Your task to perform on an android device: change the upload size in google photos Image 0: 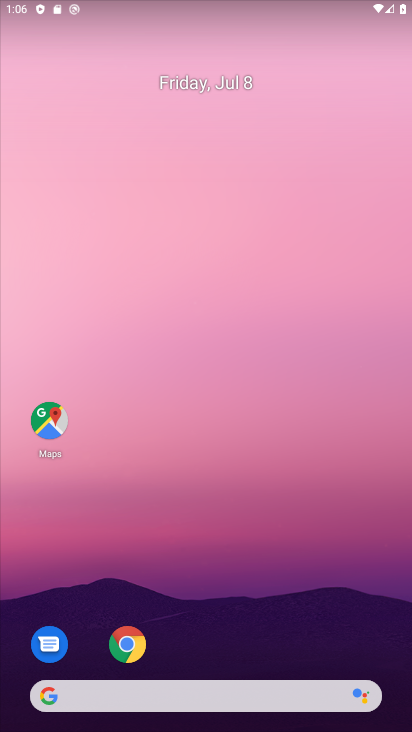
Step 0: press home button
Your task to perform on an android device: change the upload size in google photos Image 1: 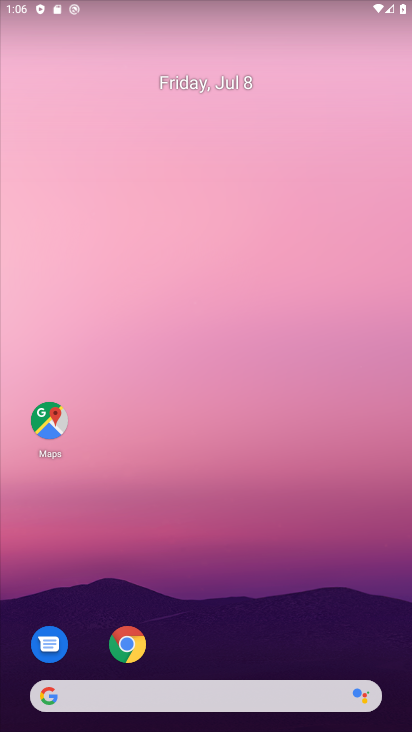
Step 1: drag from (234, 562) to (331, 62)
Your task to perform on an android device: change the upload size in google photos Image 2: 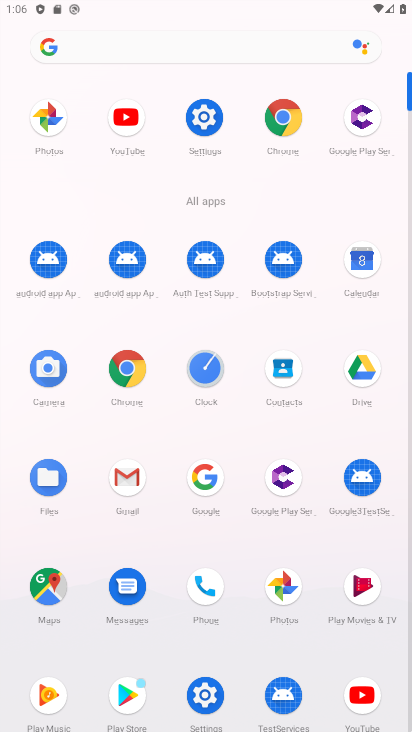
Step 2: click (283, 578)
Your task to perform on an android device: change the upload size in google photos Image 3: 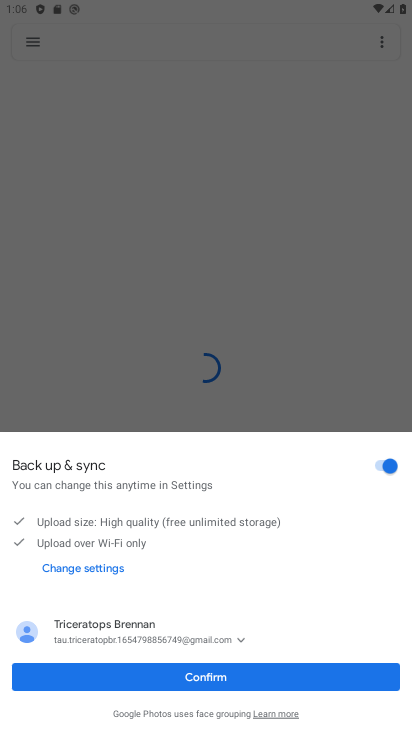
Step 3: click (240, 679)
Your task to perform on an android device: change the upload size in google photos Image 4: 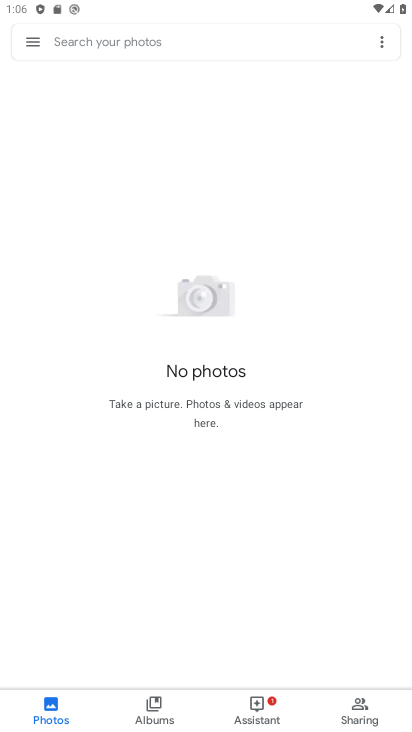
Step 4: click (57, 709)
Your task to perform on an android device: change the upload size in google photos Image 5: 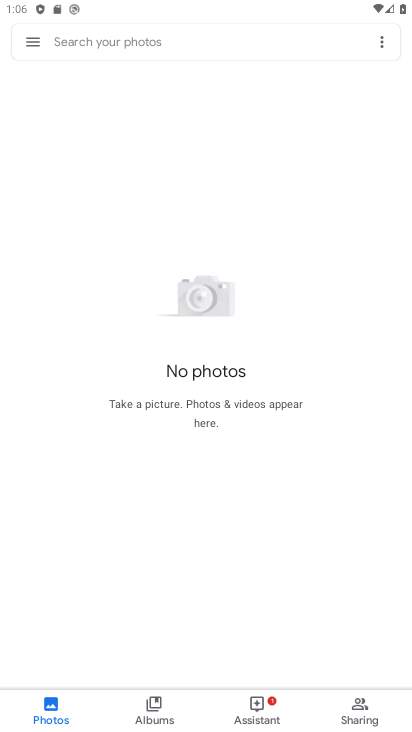
Step 5: click (382, 40)
Your task to perform on an android device: change the upload size in google photos Image 6: 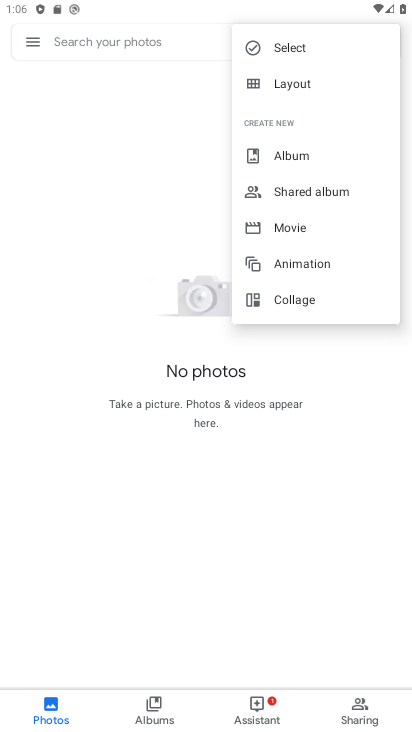
Step 6: click (33, 40)
Your task to perform on an android device: change the upload size in google photos Image 7: 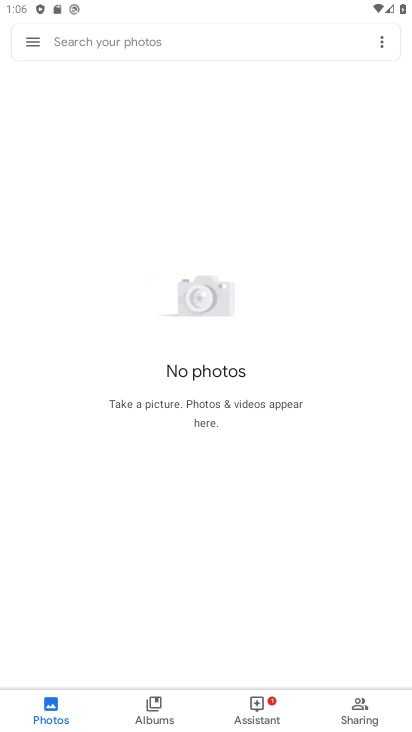
Step 7: click (32, 40)
Your task to perform on an android device: change the upload size in google photos Image 8: 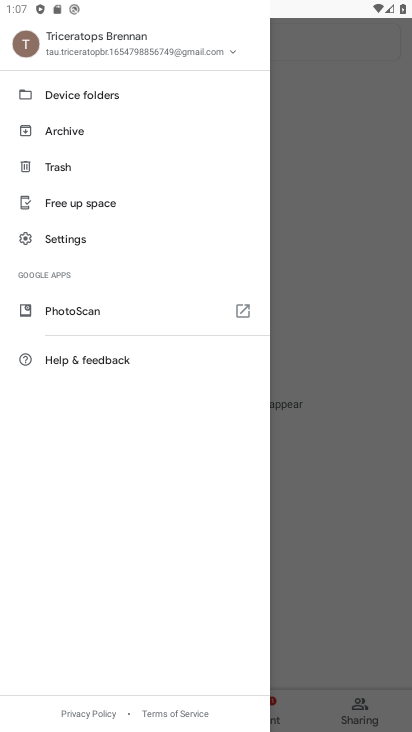
Step 8: click (65, 238)
Your task to perform on an android device: change the upload size in google photos Image 9: 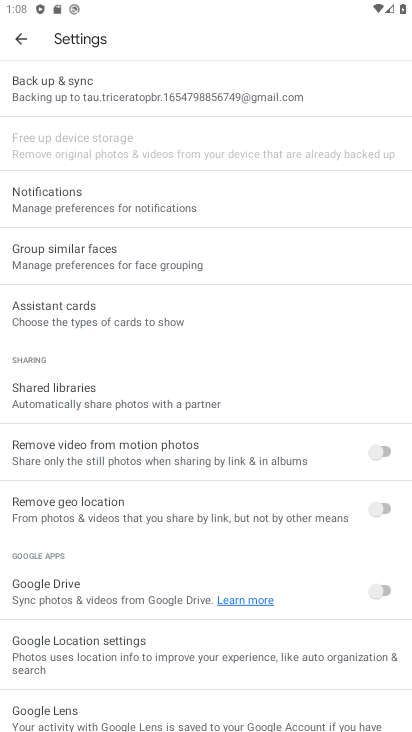
Step 9: click (70, 89)
Your task to perform on an android device: change the upload size in google photos Image 10: 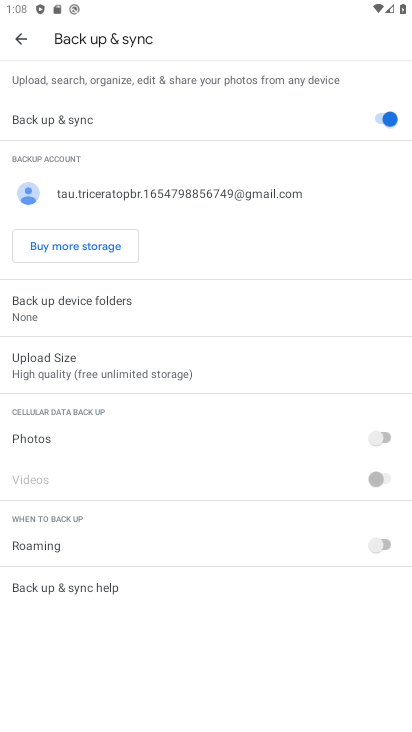
Step 10: click (125, 359)
Your task to perform on an android device: change the upload size in google photos Image 11: 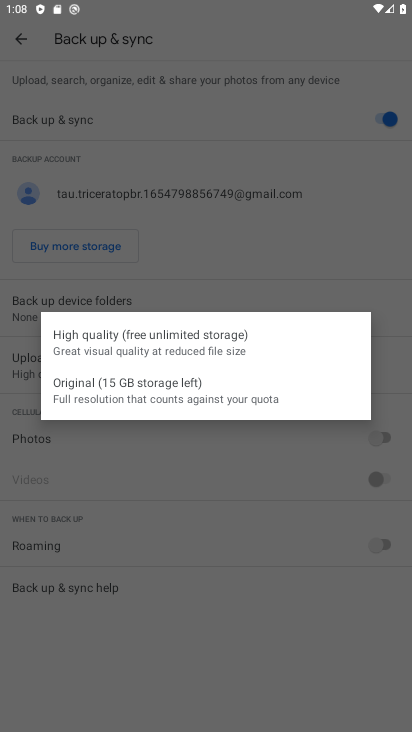
Step 11: click (241, 395)
Your task to perform on an android device: change the upload size in google photos Image 12: 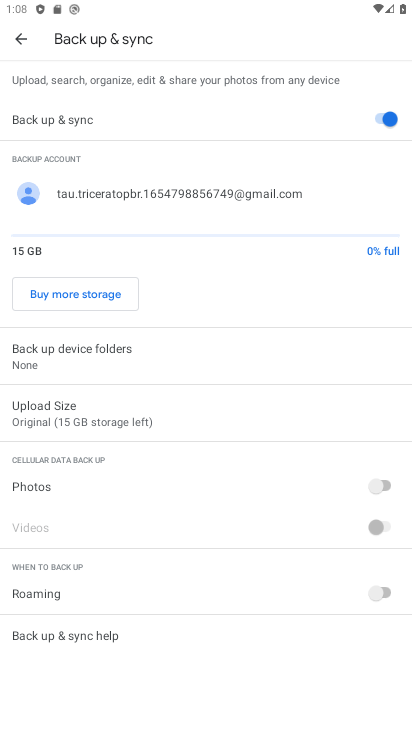
Step 12: task complete